Your task to perform on an android device: Open the calendar app, open the side menu, and click the "Day" option Image 0: 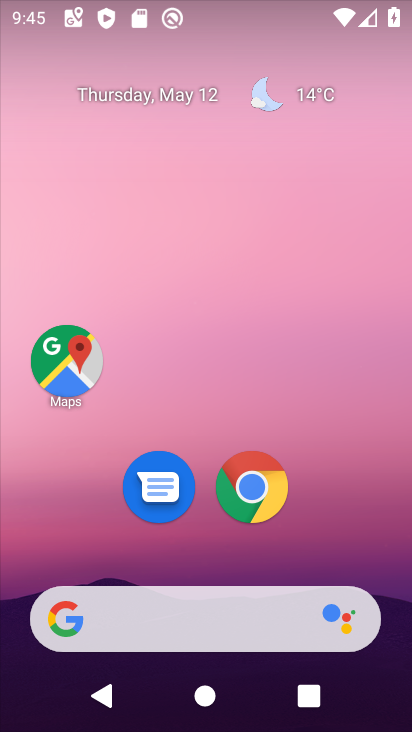
Step 0: press home button
Your task to perform on an android device: Open the calendar app, open the side menu, and click the "Day" option Image 1: 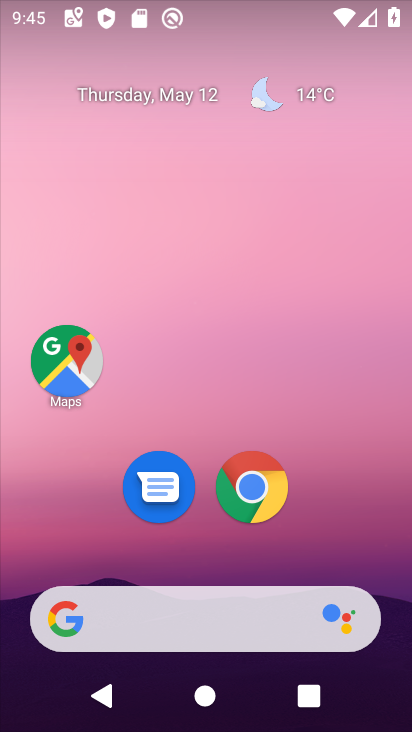
Step 1: drag from (43, 558) to (222, 213)
Your task to perform on an android device: Open the calendar app, open the side menu, and click the "Day" option Image 2: 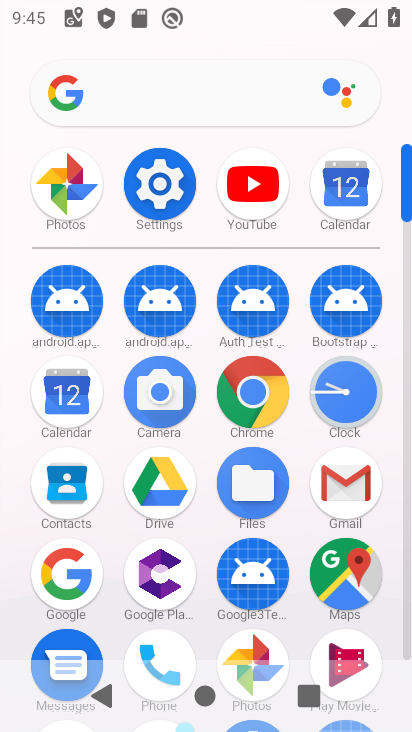
Step 2: click (81, 418)
Your task to perform on an android device: Open the calendar app, open the side menu, and click the "Day" option Image 3: 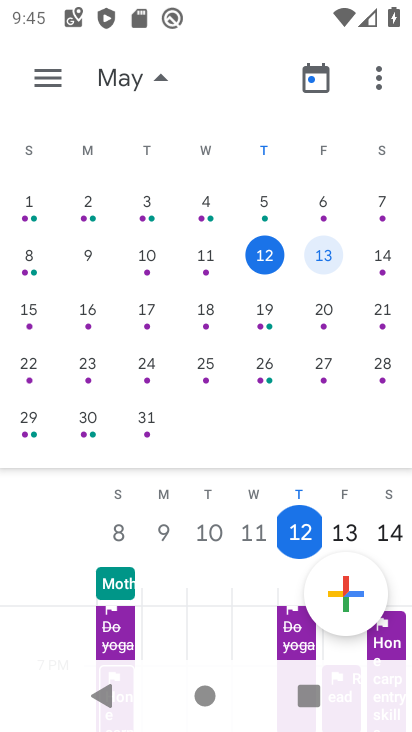
Step 3: click (41, 80)
Your task to perform on an android device: Open the calendar app, open the side menu, and click the "Day" option Image 4: 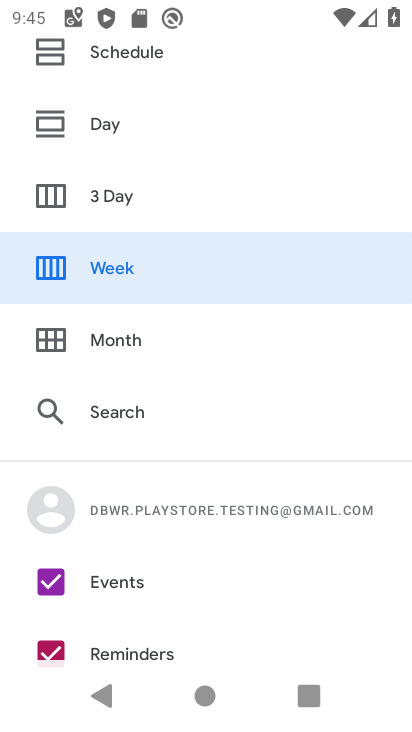
Step 4: click (115, 142)
Your task to perform on an android device: Open the calendar app, open the side menu, and click the "Day" option Image 5: 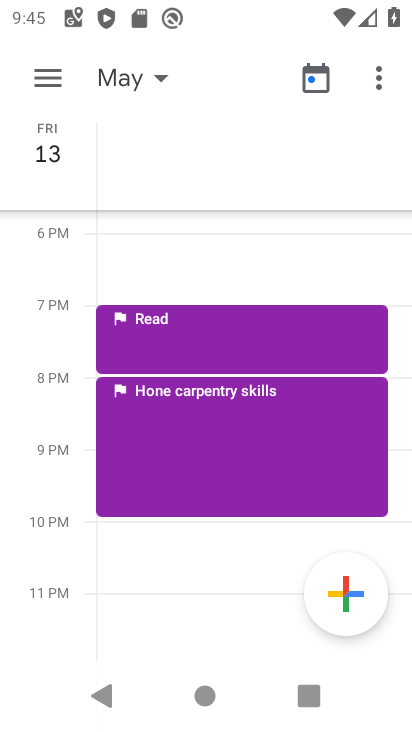
Step 5: task complete